Your task to perform on an android device: Open accessibility settings Image 0: 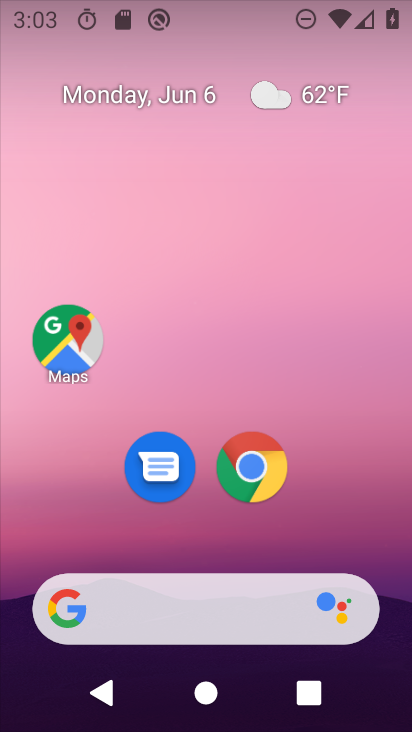
Step 0: drag from (205, 538) to (211, 189)
Your task to perform on an android device: Open accessibility settings Image 1: 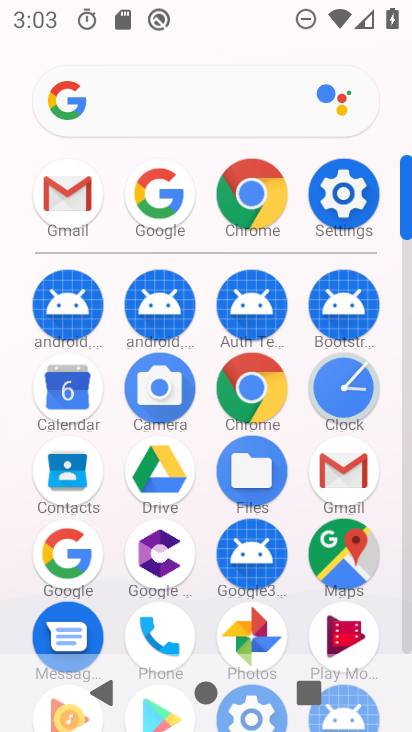
Step 1: click (353, 201)
Your task to perform on an android device: Open accessibility settings Image 2: 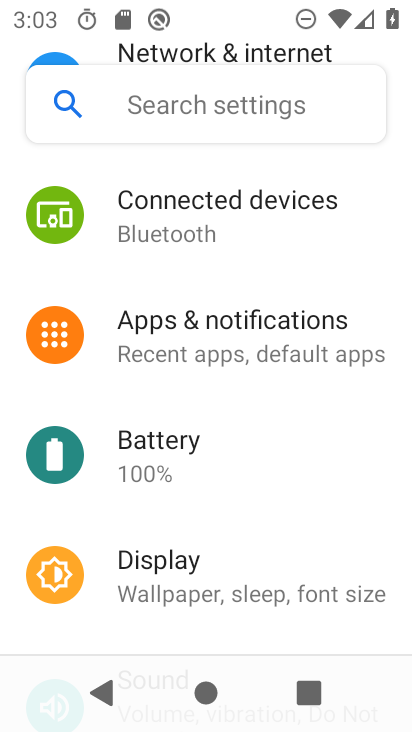
Step 2: drag from (188, 499) to (201, 228)
Your task to perform on an android device: Open accessibility settings Image 3: 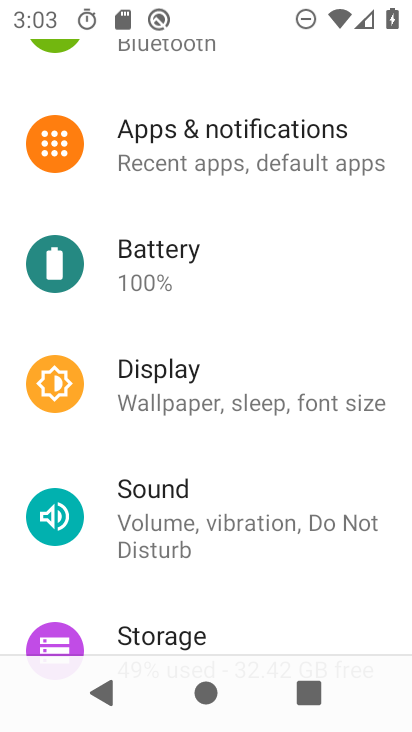
Step 3: drag from (177, 534) to (205, 208)
Your task to perform on an android device: Open accessibility settings Image 4: 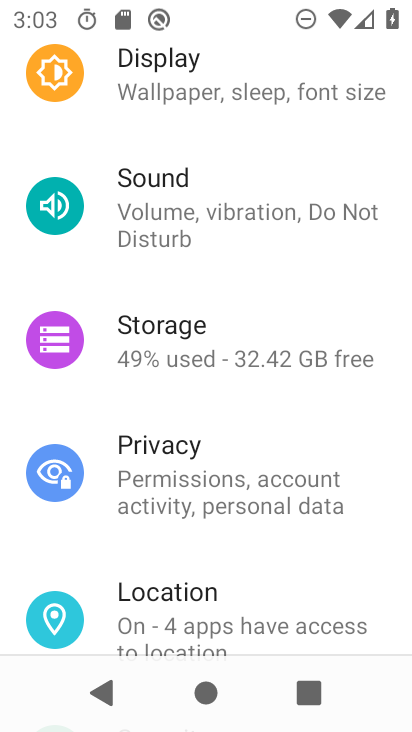
Step 4: drag from (187, 537) to (193, 227)
Your task to perform on an android device: Open accessibility settings Image 5: 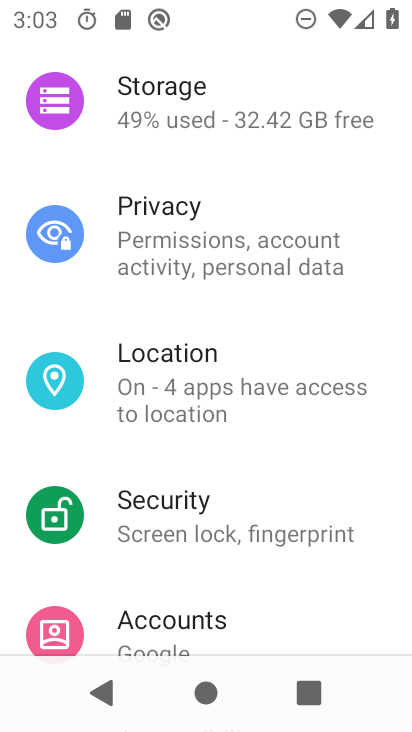
Step 5: drag from (162, 549) to (235, 242)
Your task to perform on an android device: Open accessibility settings Image 6: 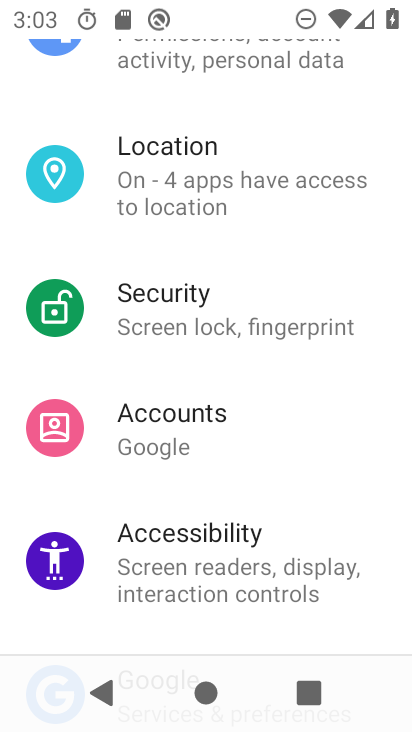
Step 6: click (197, 560)
Your task to perform on an android device: Open accessibility settings Image 7: 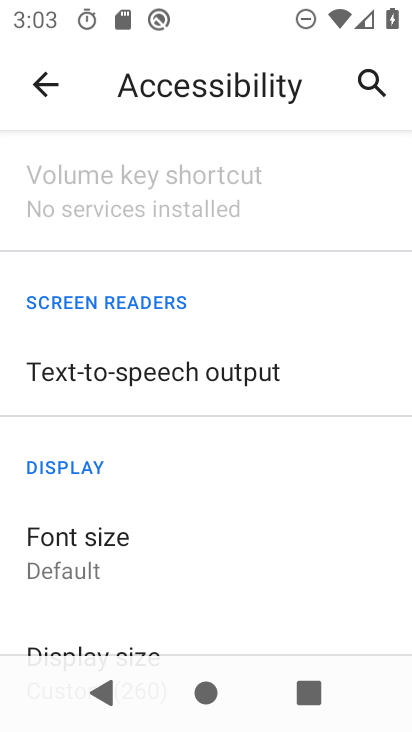
Step 7: task complete